Your task to perform on an android device: Open the Play Movies app and select the watchlist tab. Image 0: 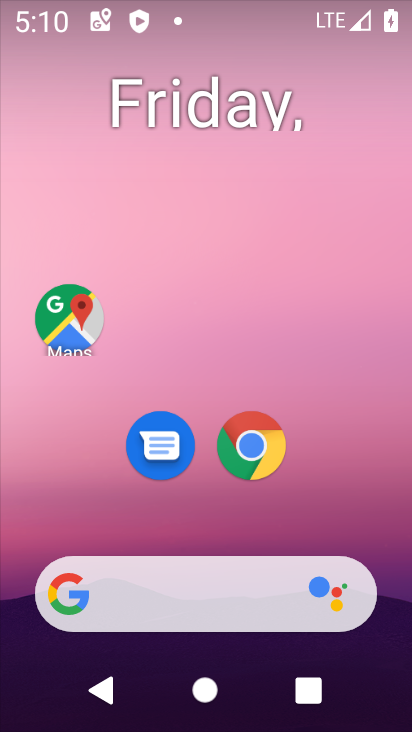
Step 0: click (69, 345)
Your task to perform on an android device: Open the Play Movies app and select the watchlist tab. Image 1: 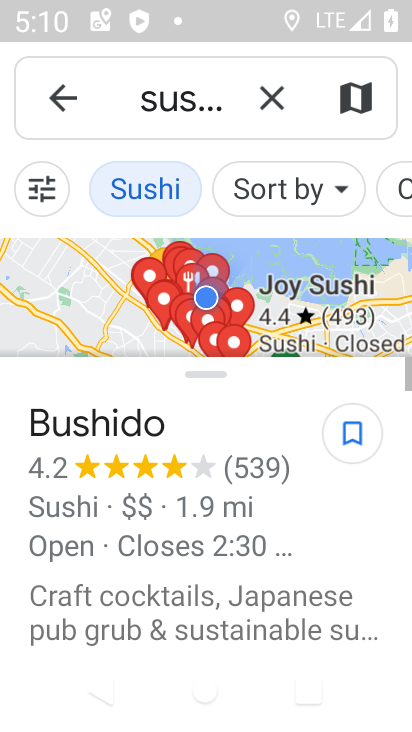
Step 1: press home button
Your task to perform on an android device: Open the Play Movies app and select the watchlist tab. Image 2: 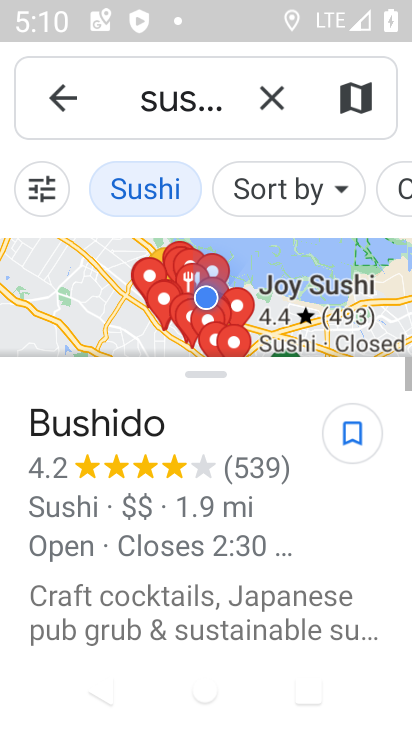
Step 2: press home button
Your task to perform on an android device: Open the Play Movies app and select the watchlist tab. Image 3: 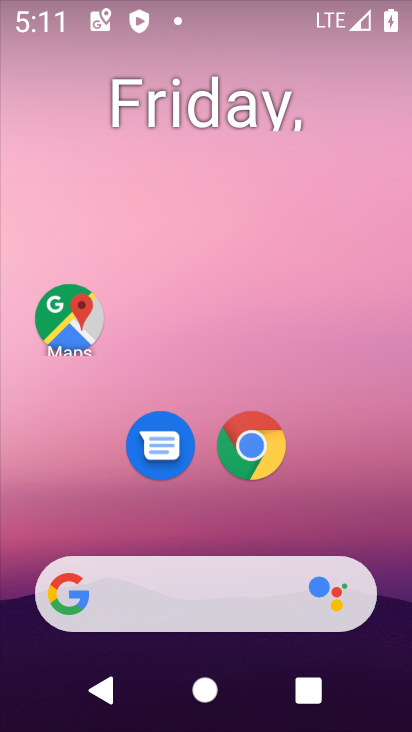
Step 3: drag from (364, 530) to (367, 189)
Your task to perform on an android device: Open the Play Movies app and select the watchlist tab. Image 4: 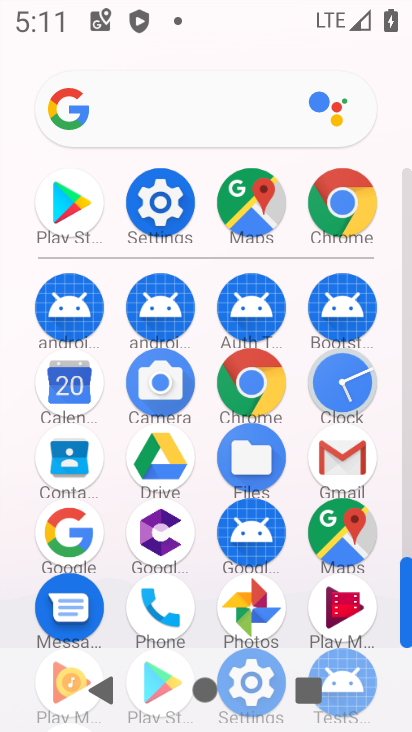
Step 4: click (365, 595)
Your task to perform on an android device: Open the Play Movies app and select the watchlist tab. Image 5: 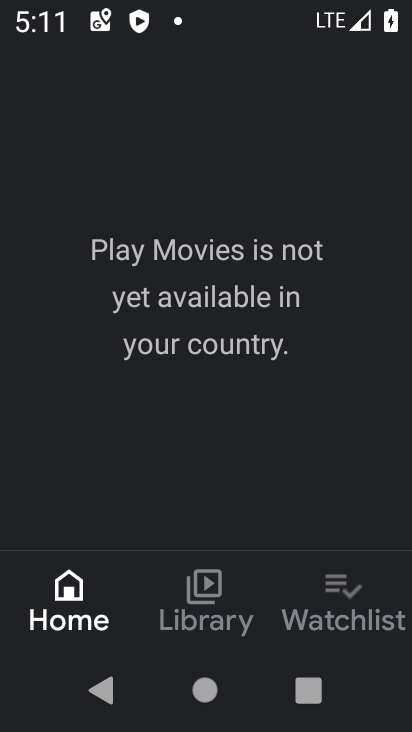
Step 5: click (362, 601)
Your task to perform on an android device: Open the Play Movies app and select the watchlist tab. Image 6: 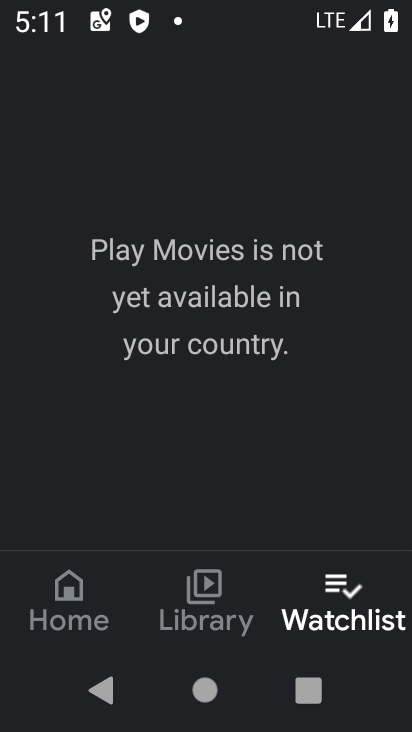
Step 6: task complete